Your task to perform on an android device: Show me productivity apps on the Play Store Image 0: 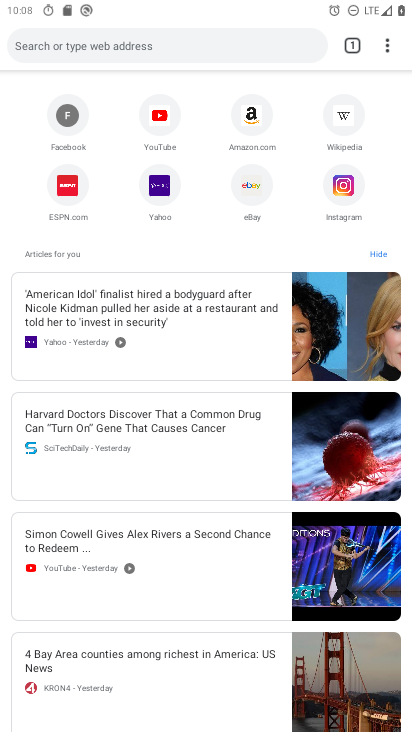
Step 0: press home button
Your task to perform on an android device: Show me productivity apps on the Play Store Image 1: 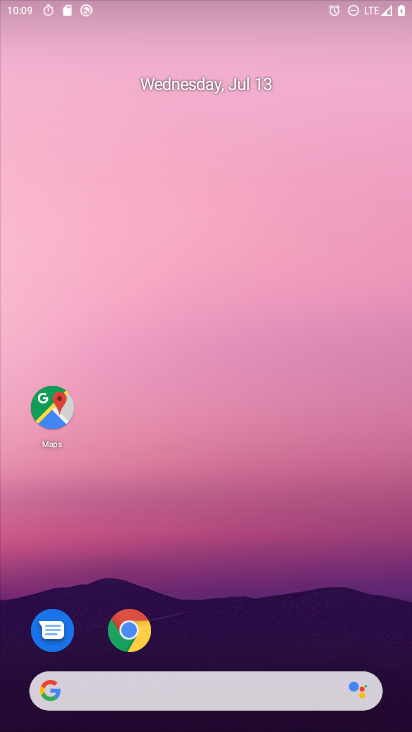
Step 1: drag from (369, 622) to (235, 90)
Your task to perform on an android device: Show me productivity apps on the Play Store Image 2: 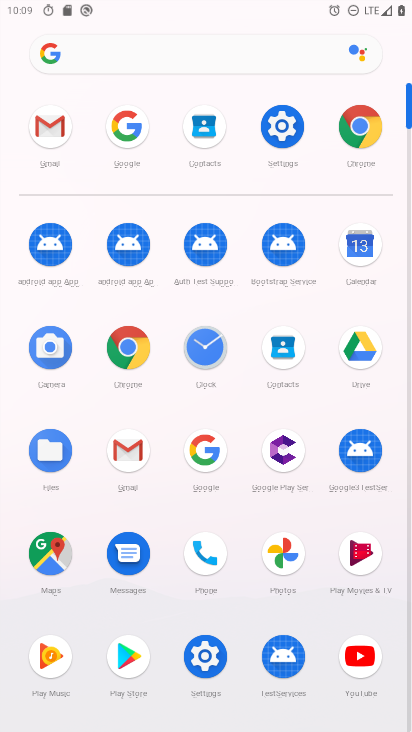
Step 2: click (116, 648)
Your task to perform on an android device: Show me productivity apps on the Play Store Image 3: 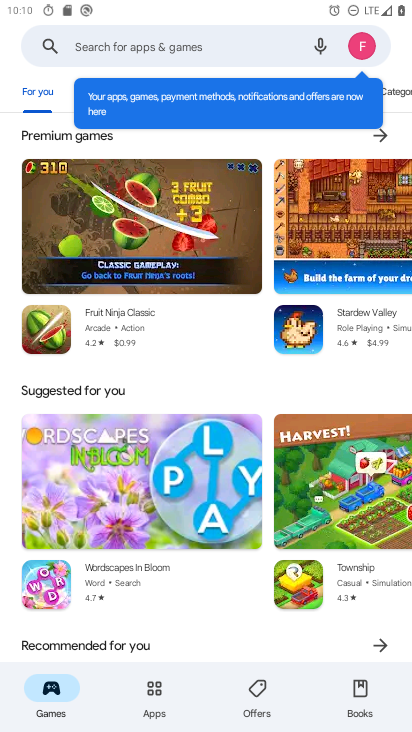
Step 3: task complete